Your task to perform on an android device: Open maps Image 0: 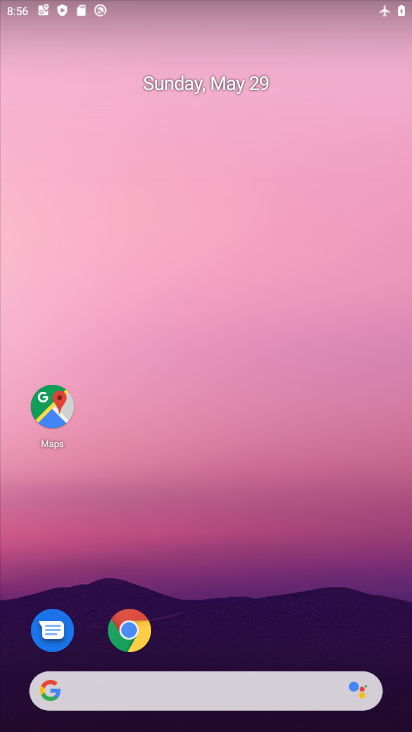
Step 0: click (68, 428)
Your task to perform on an android device: Open maps Image 1: 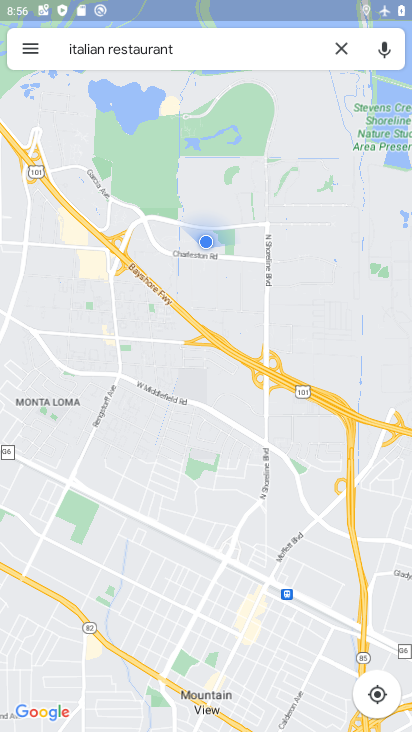
Step 1: task complete